Your task to perform on an android device: Go to Google maps Image 0: 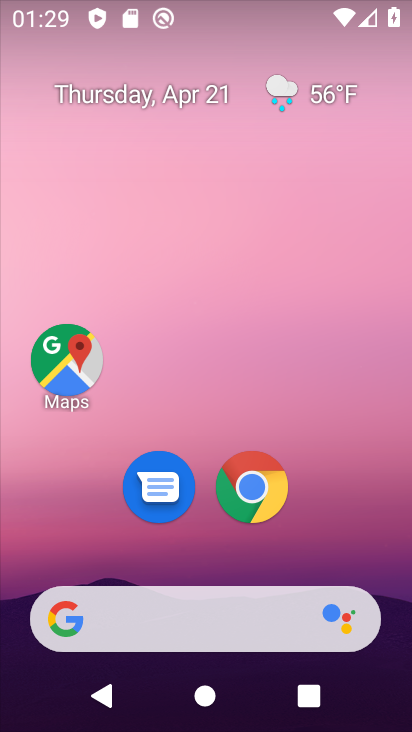
Step 0: drag from (320, 517) to (327, 106)
Your task to perform on an android device: Go to Google maps Image 1: 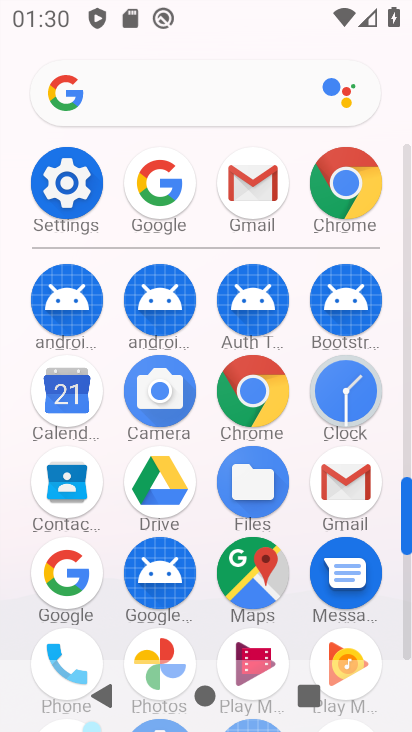
Step 1: click (255, 588)
Your task to perform on an android device: Go to Google maps Image 2: 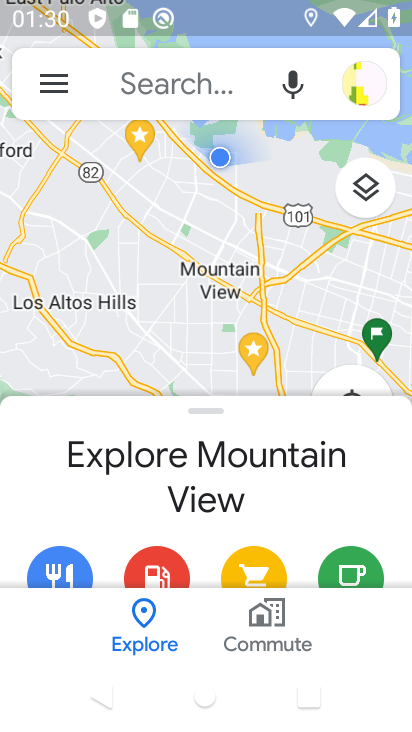
Step 2: task complete